Your task to perform on an android device: Open the Play Movies app and select the watchlist tab. Image 0: 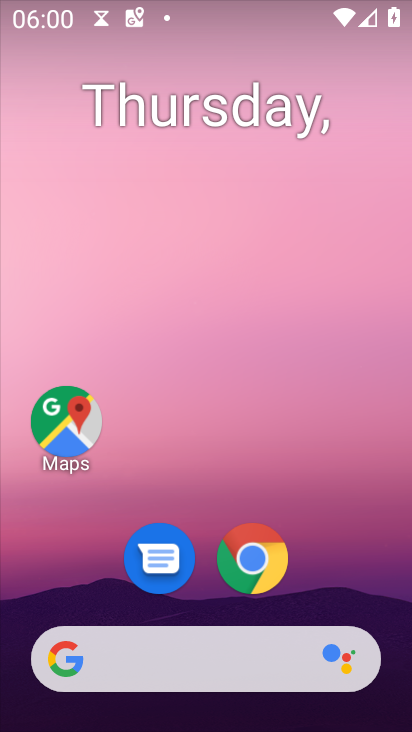
Step 0: drag from (320, 609) to (273, 108)
Your task to perform on an android device: Open the Play Movies app and select the watchlist tab. Image 1: 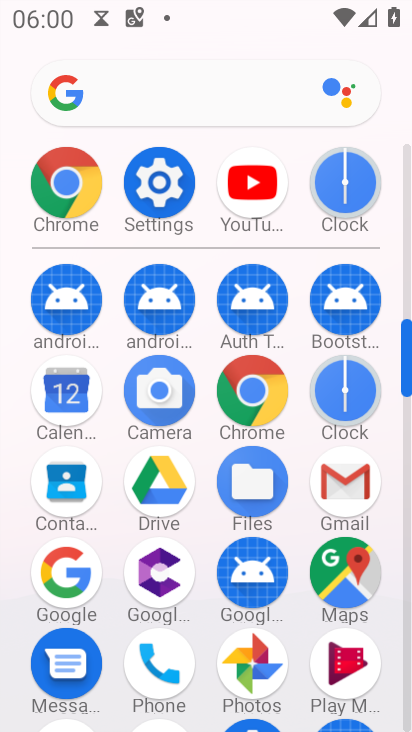
Step 1: drag from (220, 638) to (215, 346)
Your task to perform on an android device: Open the Play Movies app and select the watchlist tab. Image 2: 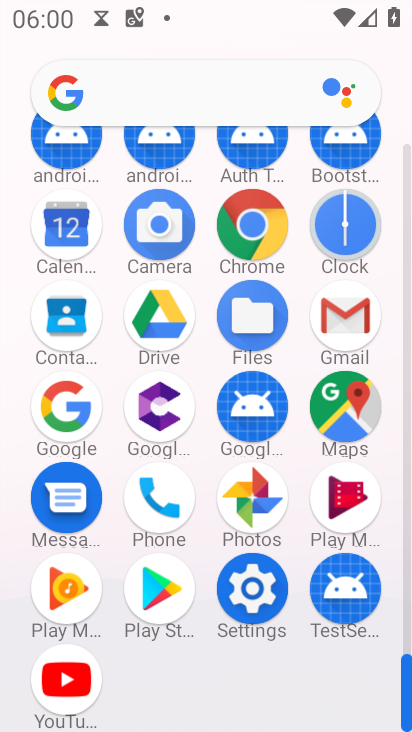
Step 2: click (353, 515)
Your task to perform on an android device: Open the Play Movies app and select the watchlist tab. Image 3: 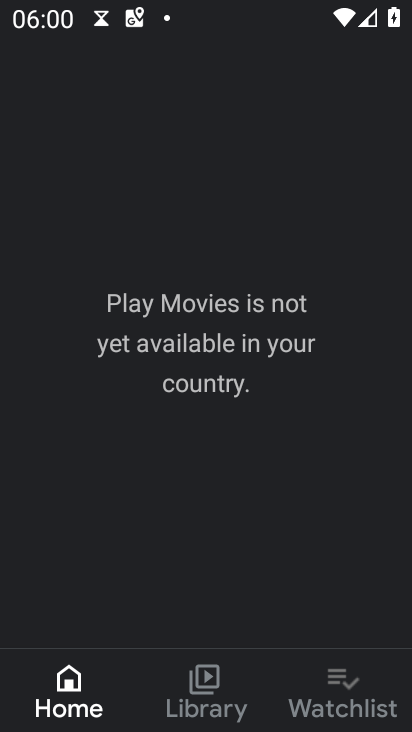
Step 3: click (338, 690)
Your task to perform on an android device: Open the Play Movies app and select the watchlist tab. Image 4: 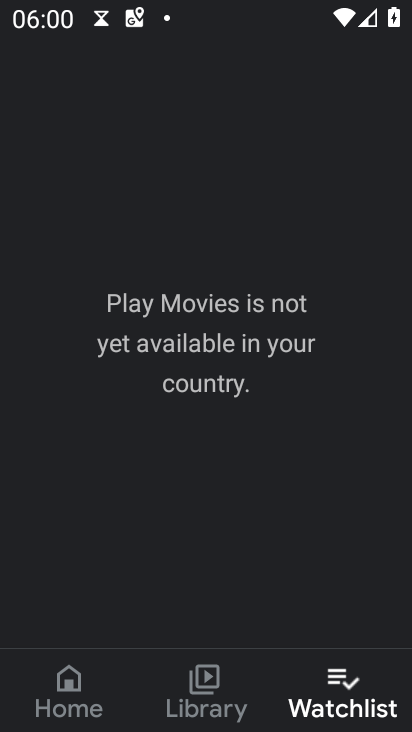
Step 4: task complete